Your task to perform on an android device: turn pop-ups on in chrome Image 0: 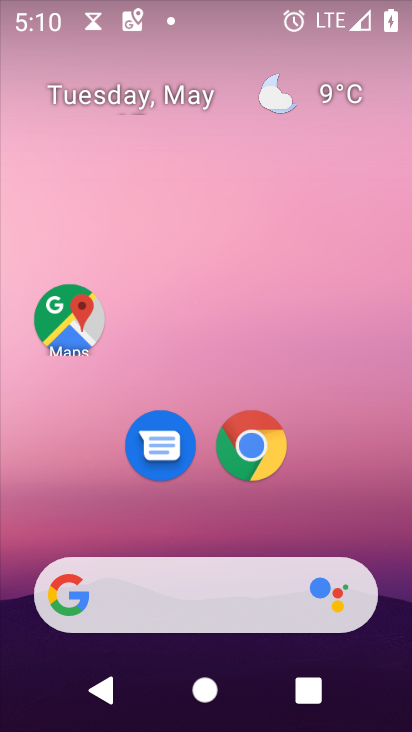
Step 0: drag from (302, 584) to (285, 46)
Your task to perform on an android device: turn pop-ups on in chrome Image 1: 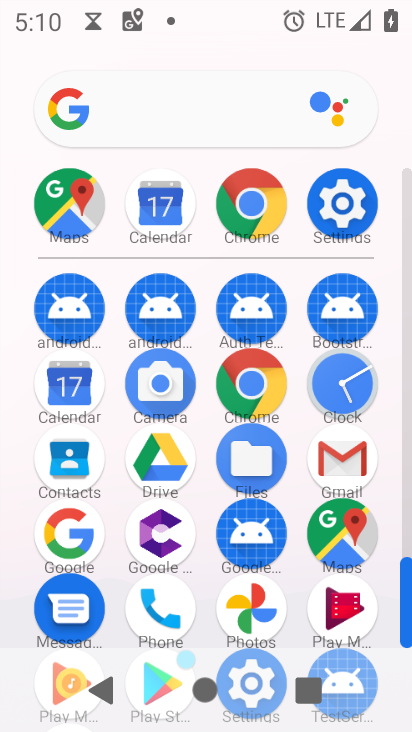
Step 1: click (251, 386)
Your task to perform on an android device: turn pop-ups on in chrome Image 2: 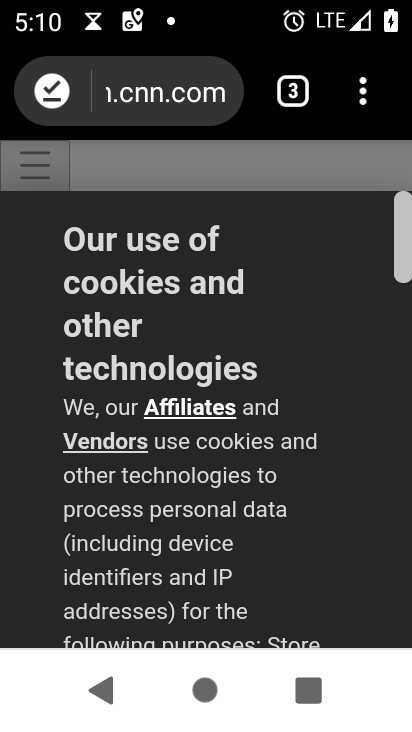
Step 2: click (371, 91)
Your task to perform on an android device: turn pop-ups on in chrome Image 3: 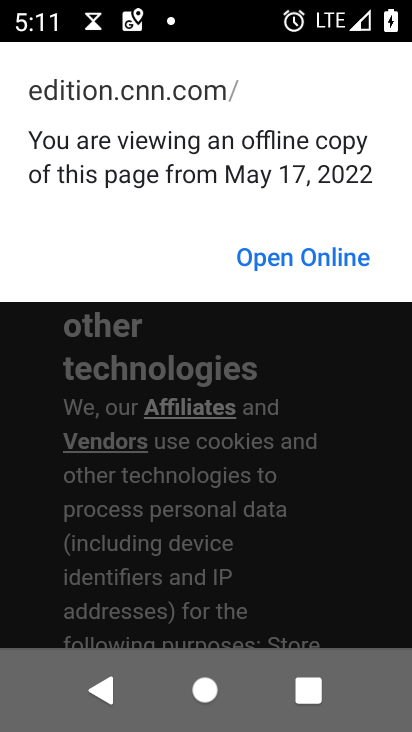
Step 3: press back button
Your task to perform on an android device: turn pop-ups on in chrome Image 4: 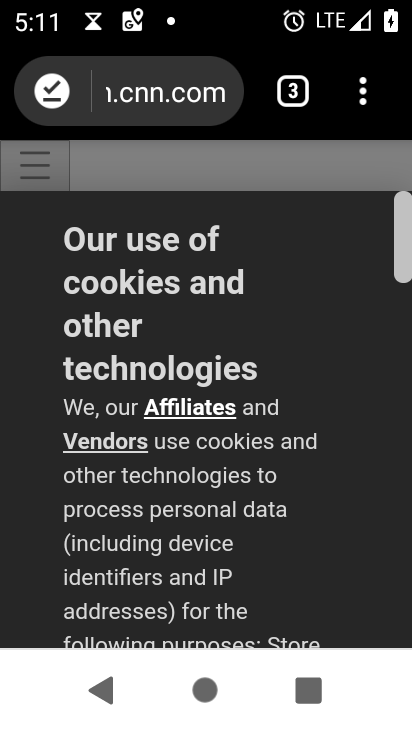
Step 4: click (351, 80)
Your task to perform on an android device: turn pop-ups on in chrome Image 5: 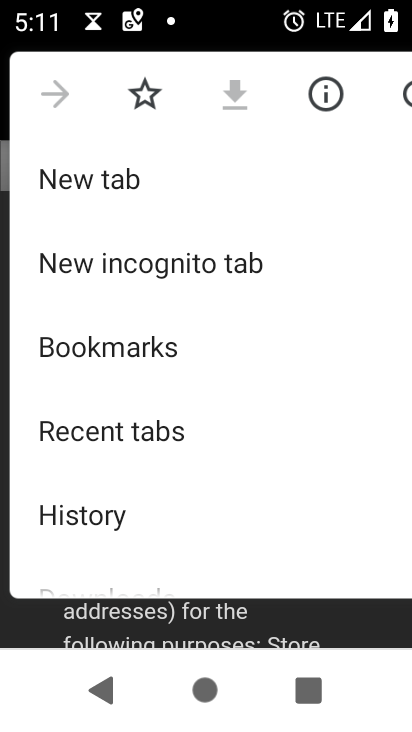
Step 5: drag from (243, 528) to (265, 86)
Your task to perform on an android device: turn pop-ups on in chrome Image 6: 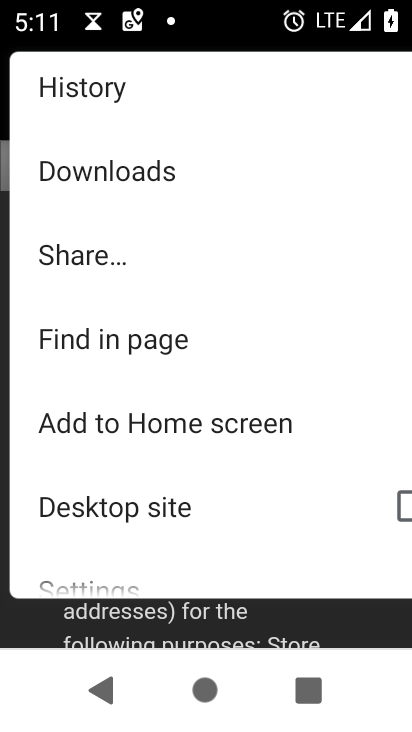
Step 6: drag from (165, 540) to (193, 278)
Your task to perform on an android device: turn pop-ups on in chrome Image 7: 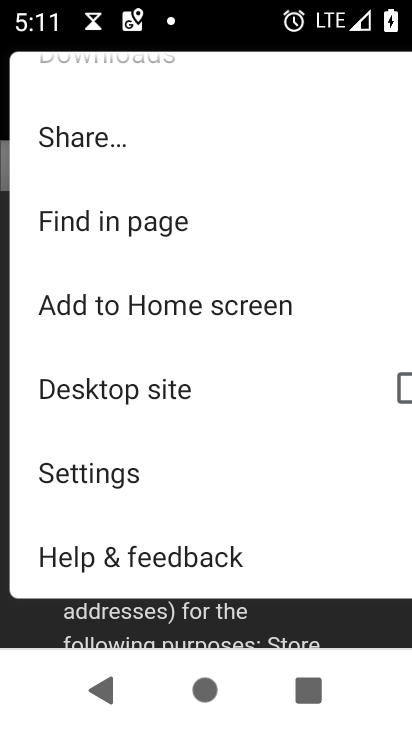
Step 7: click (151, 485)
Your task to perform on an android device: turn pop-ups on in chrome Image 8: 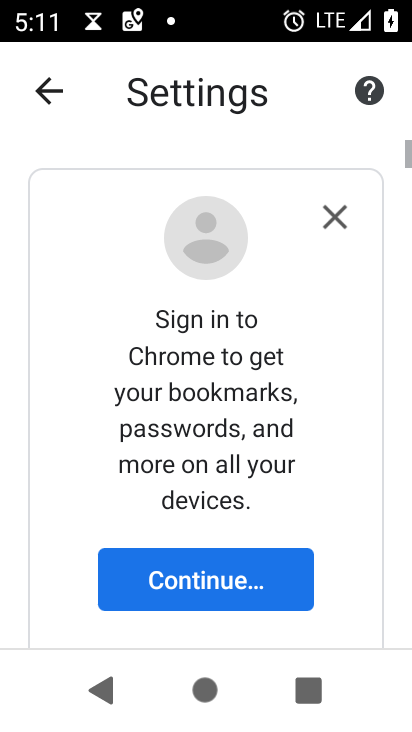
Step 8: drag from (267, 689) to (309, 124)
Your task to perform on an android device: turn pop-ups on in chrome Image 9: 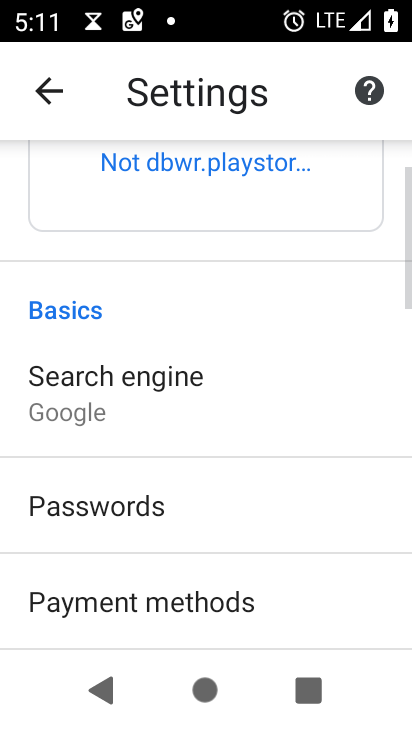
Step 9: drag from (311, 569) to (292, 235)
Your task to perform on an android device: turn pop-ups on in chrome Image 10: 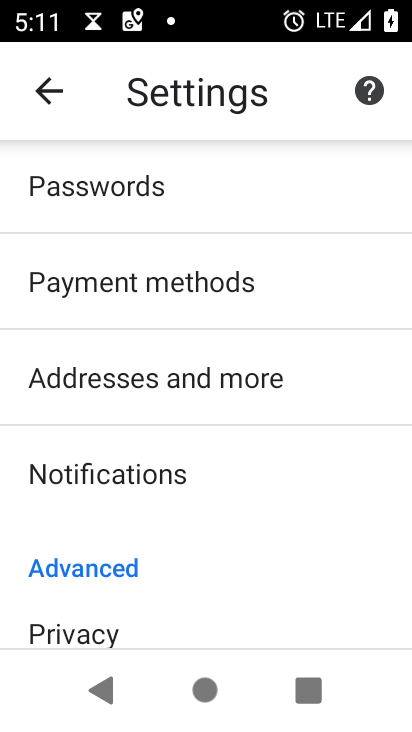
Step 10: drag from (204, 609) to (220, 204)
Your task to perform on an android device: turn pop-ups on in chrome Image 11: 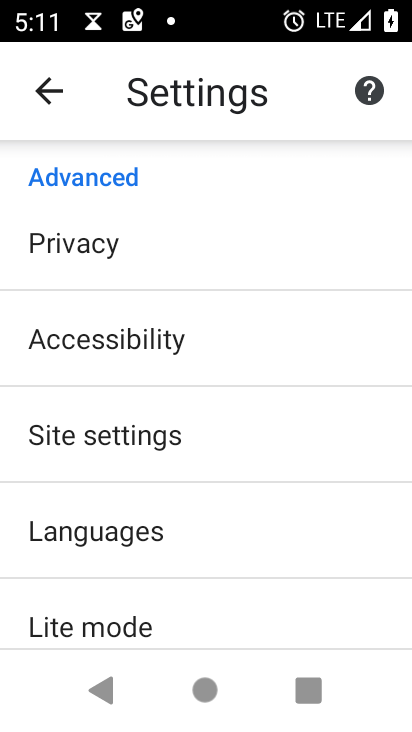
Step 11: click (156, 445)
Your task to perform on an android device: turn pop-ups on in chrome Image 12: 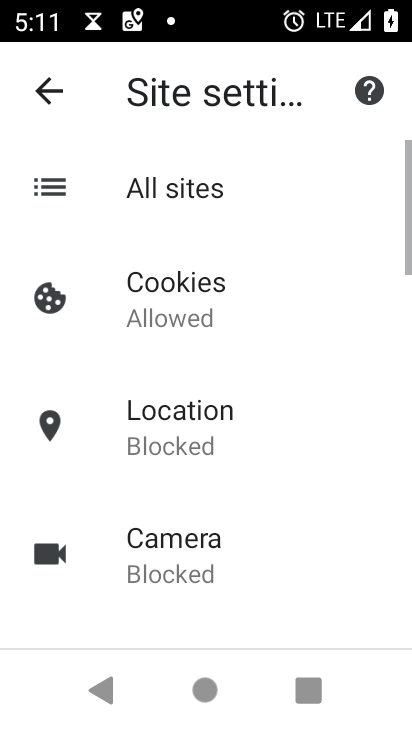
Step 12: drag from (259, 558) to (270, 214)
Your task to perform on an android device: turn pop-ups on in chrome Image 13: 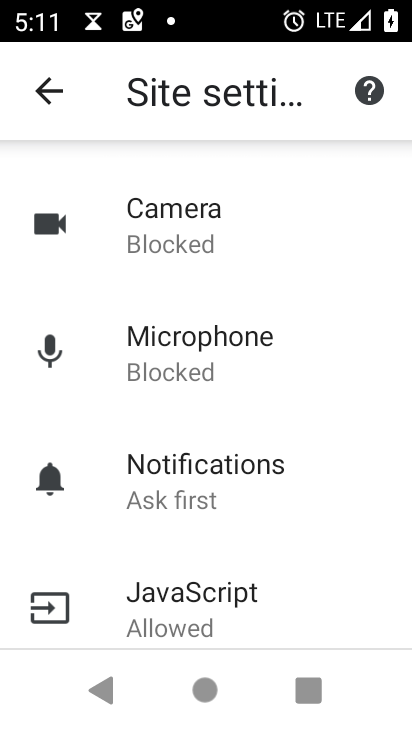
Step 13: drag from (308, 630) to (323, 329)
Your task to perform on an android device: turn pop-ups on in chrome Image 14: 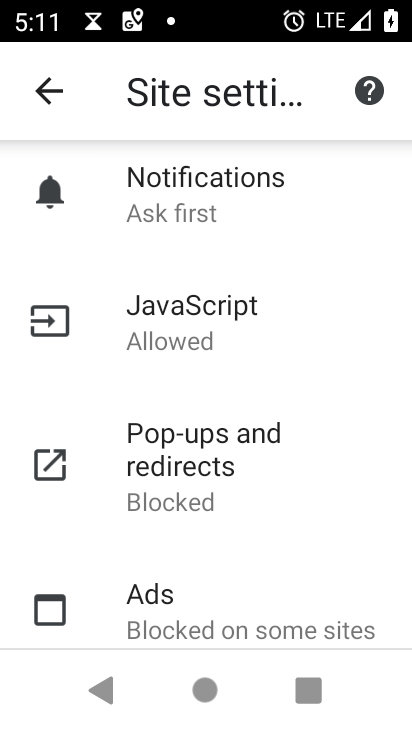
Step 14: click (235, 472)
Your task to perform on an android device: turn pop-ups on in chrome Image 15: 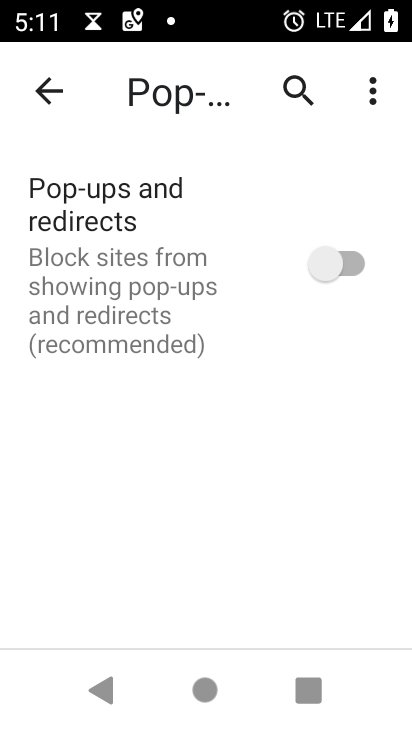
Step 15: click (358, 272)
Your task to perform on an android device: turn pop-ups on in chrome Image 16: 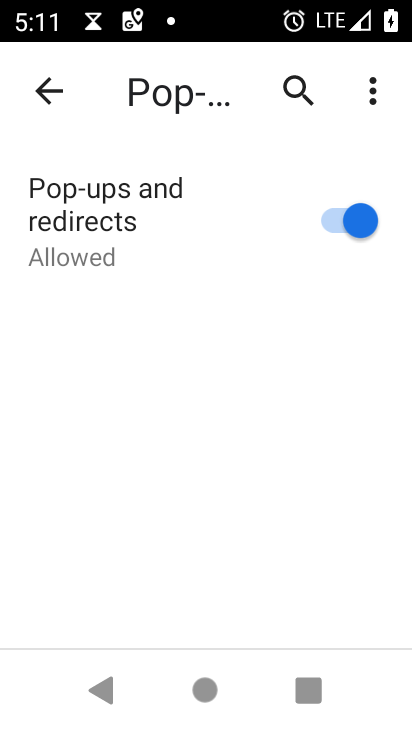
Step 16: task complete